Your task to perform on an android device: Open CNN.com Image 0: 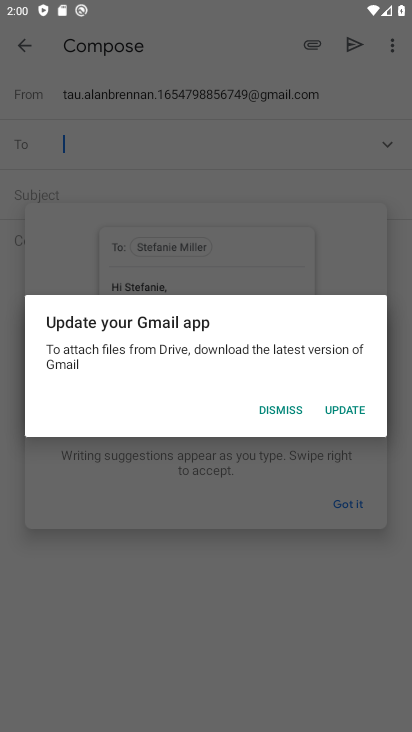
Step 0: press home button
Your task to perform on an android device: Open CNN.com Image 1: 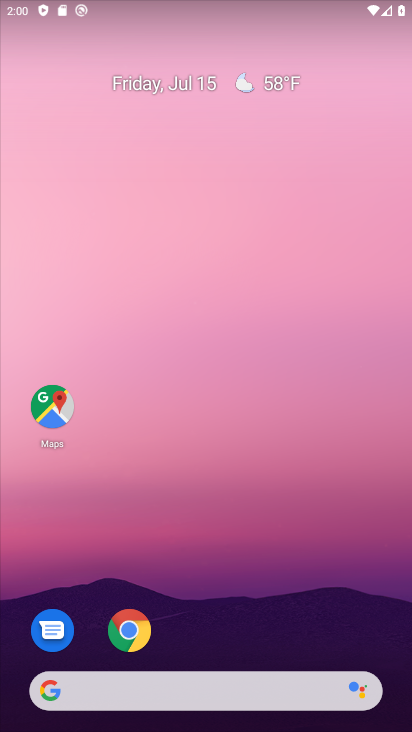
Step 1: drag from (377, 602) to (372, 120)
Your task to perform on an android device: Open CNN.com Image 2: 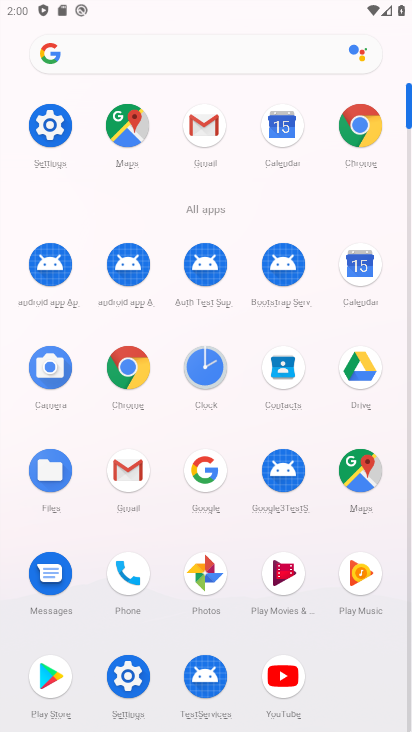
Step 2: click (137, 374)
Your task to perform on an android device: Open CNN.com Image 3: 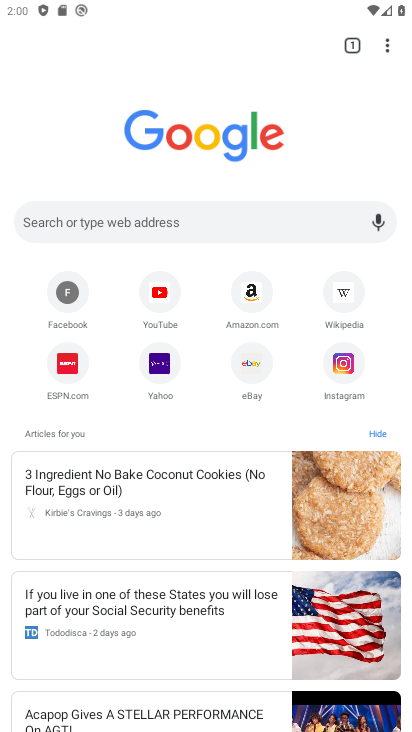
Step 3: click (211, 216)
Your task to perform on an android device: Open CNN.com Image 4: 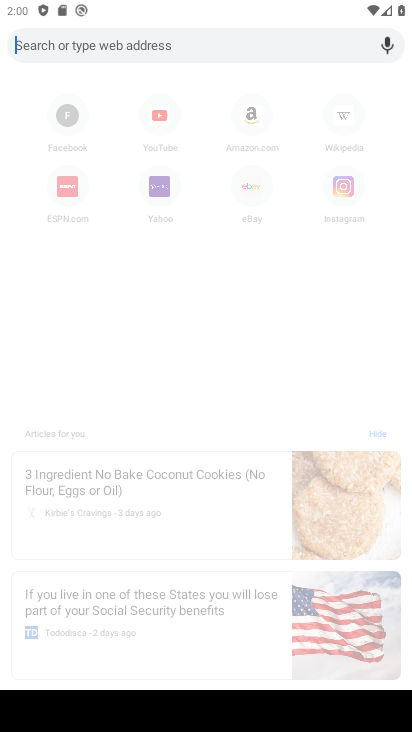
Step 4: type "cnn.com"
Your task to perform on an android device: Open CNN.com Image 5: 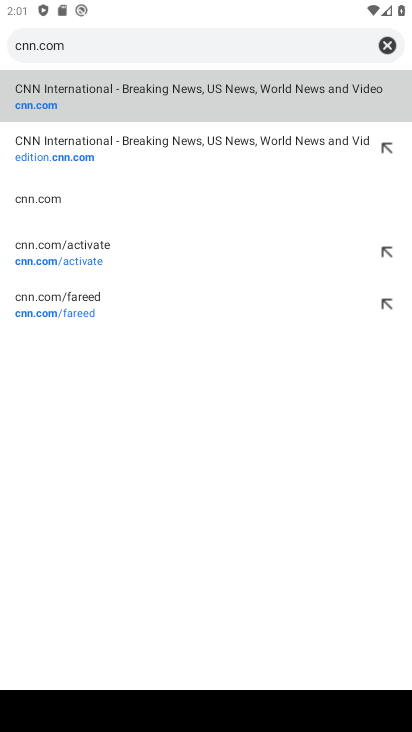
Step 5: click (199, 97)
Your task to perform on an android device: Open CNN.com Image 6: 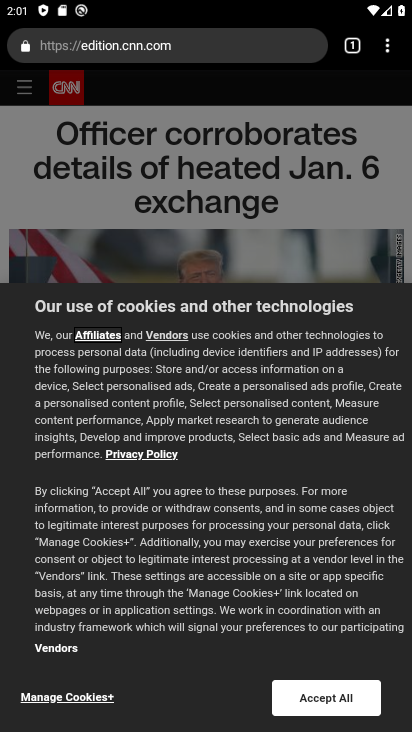
Step 6: task complete